Your task to perform on an android device: open a new tab in the chrome app Image 0: 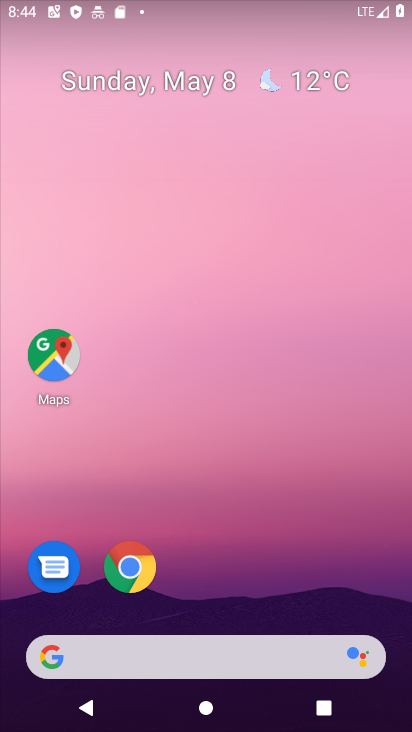
Step 0: click (153, 566)
Your task to perform on an android device: open a new tab in the chrome app Image 1: 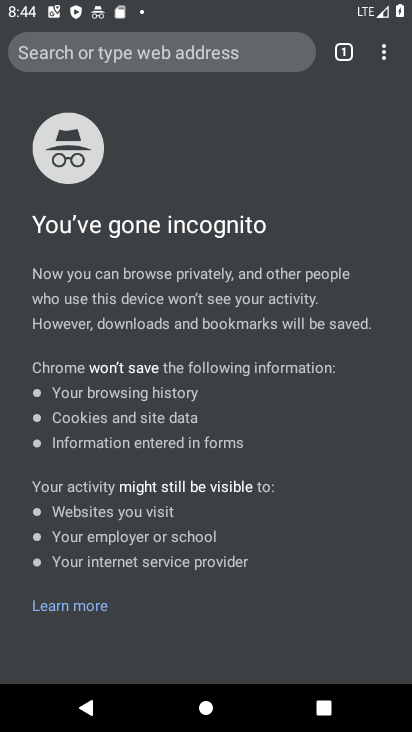
Step 1: click (344, 56)
Your task to perform on an android device: open a new tab in the chrome app Image 2: 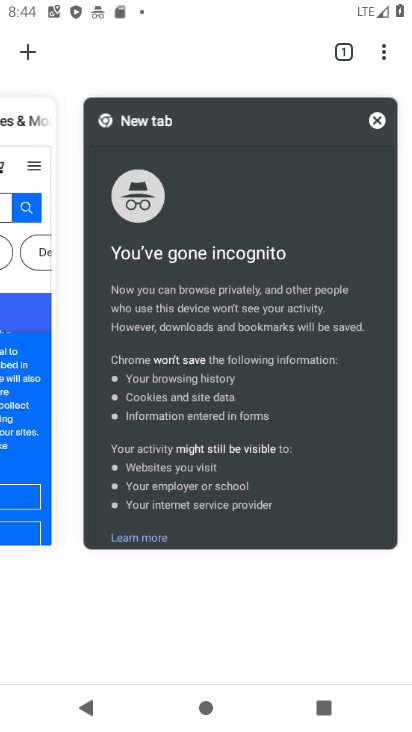
Step 2: click (24, 55)
Your task to perform on an android device: open a new tab in the chrome app Image 3: 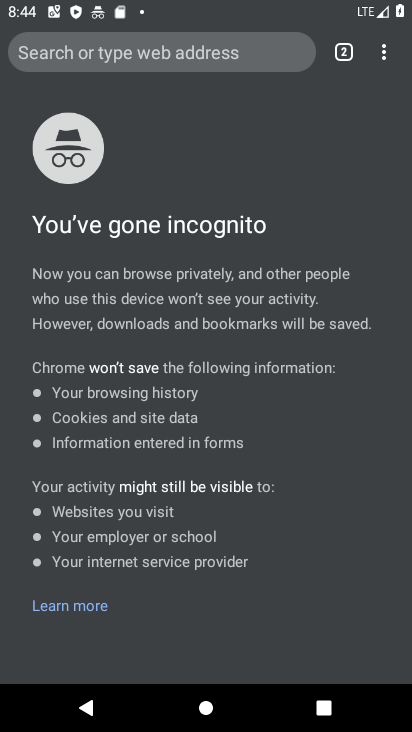
Step 3: task complete